Your task to perform on an android device: What is the news today? Image 0: 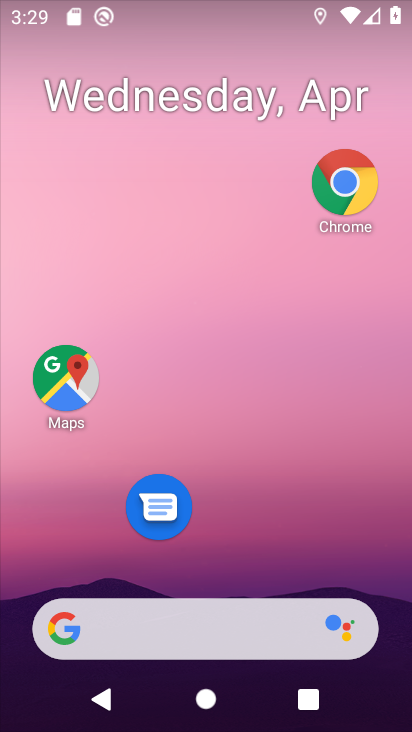
Step 0: drag from (227, 359) to (286, 73)
Your task to perform on an android device: What is the news today? Image 1: 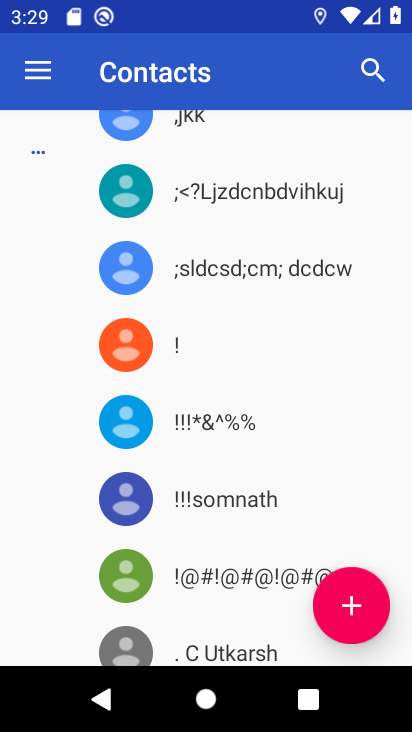
Step 1: press home button
Your task to perform on an android device: What is the news today? Image 2: 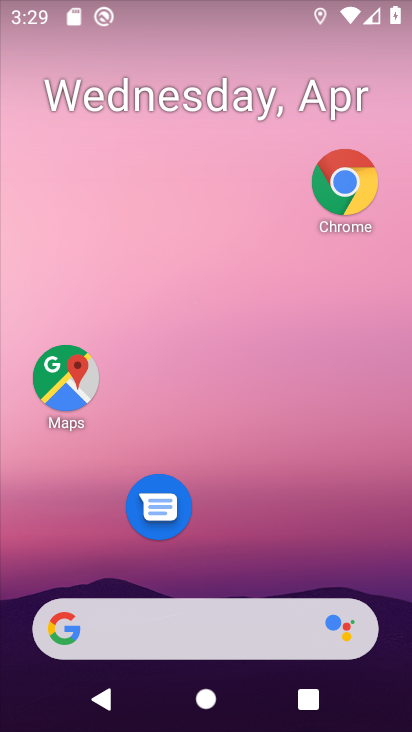
Step 2: click (181, 634)
Your task to perform on an android device: What is the news today? Image 3: 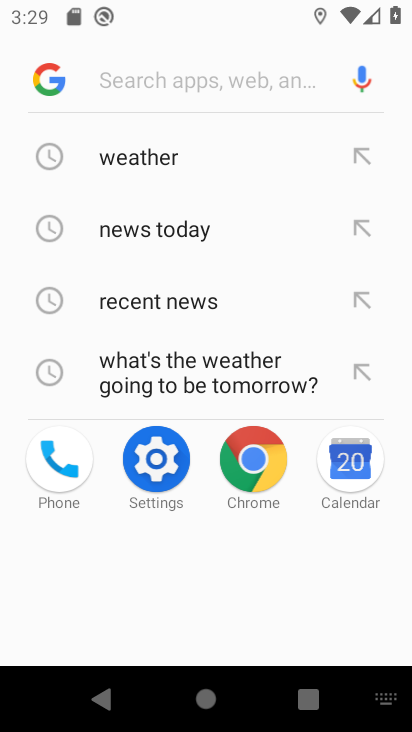
Step 3: click (162, 229)
Your task to perform on an android device: What is the news today? Image 4: 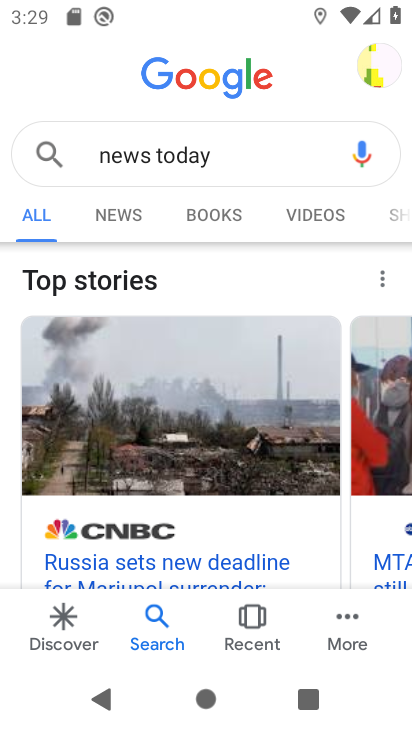
Step 4: task complete